Your task to perform on an android device: Open wifi settings Image 0: 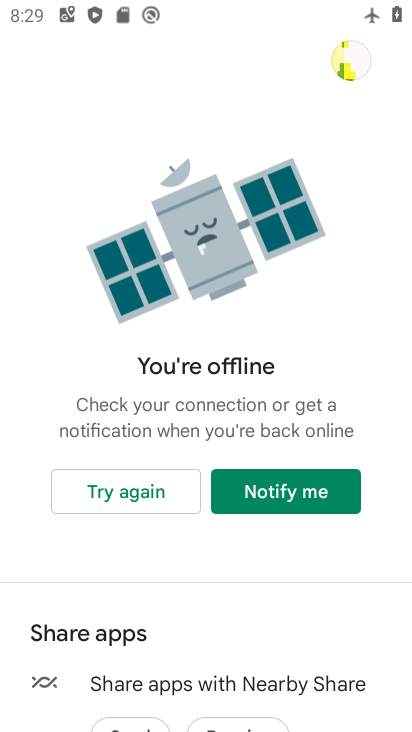
Step 0: press home button
Your task to perform on an android device: Open wifi settings Image 1: 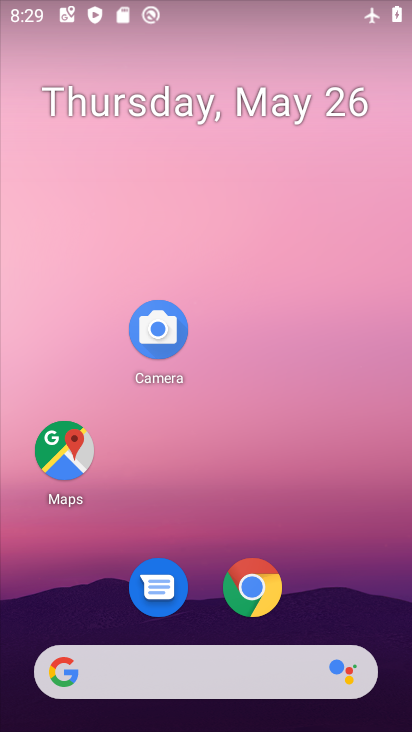
Step 1: drag from (219, 613) to (221, 279)
Your task to perform on an android device: Open wifi settings Image 2: 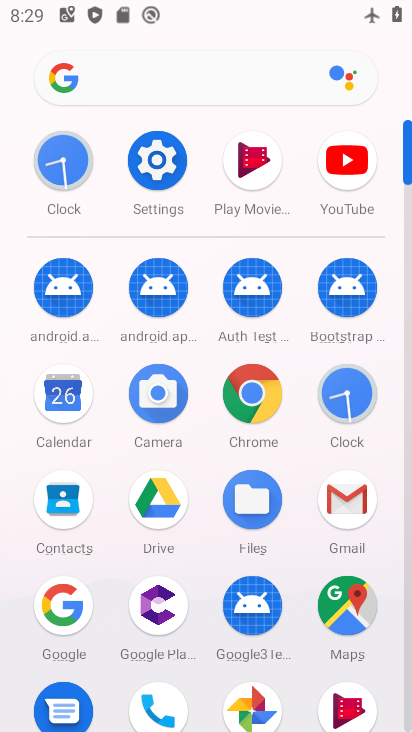
Step 2: click (173, 155)
Your task to perform on an android device: Open wifi settings Image 3: 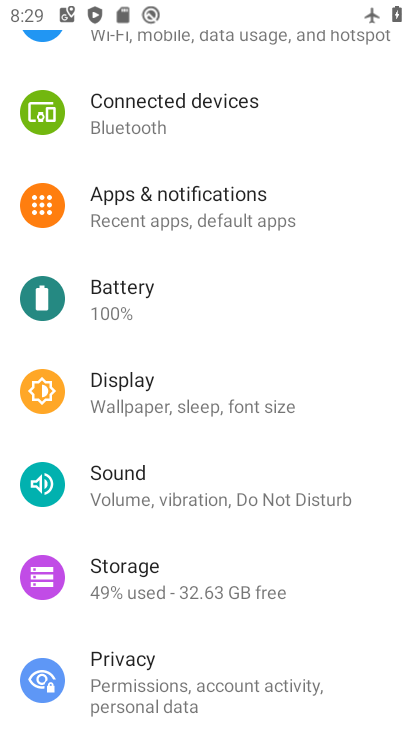
Step 3: drag from (158, 148) to (195, 497)
Your task to perform on an android device: Open wifi settings Image 4: 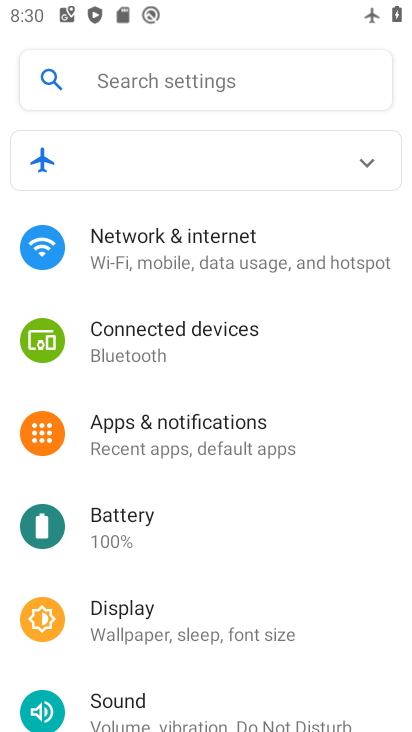
Step 4: click (170, 231)
Your task to perform on an android device: Open wifi settings Image 5: 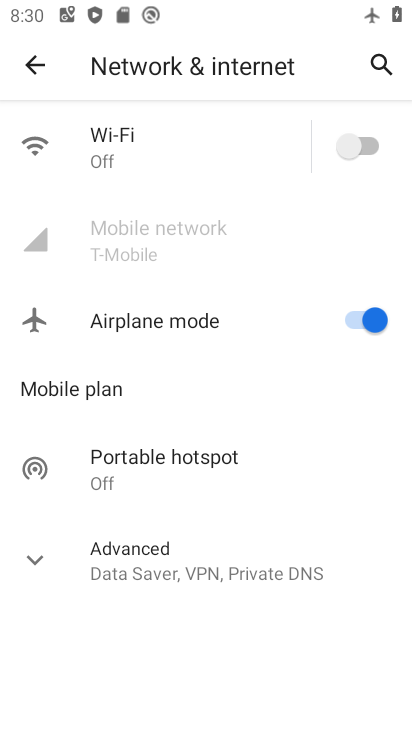
Step 5: click (162, 146)
Your task to perform on an android device: Open wifi settings Image 6: 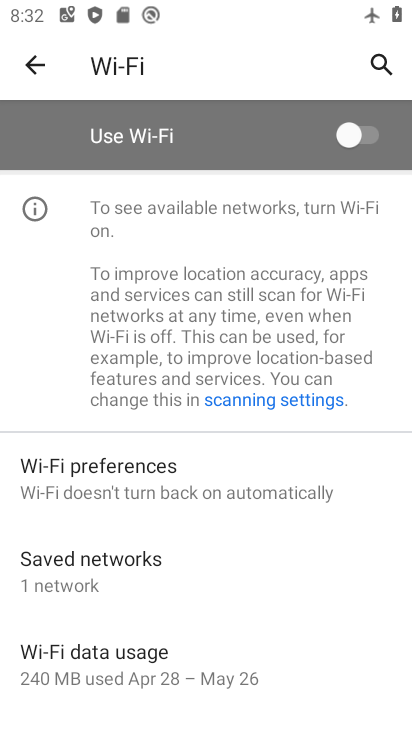
Step 6: task complete